Your task to perform on an android device: clear history in the chrome app Image 0: 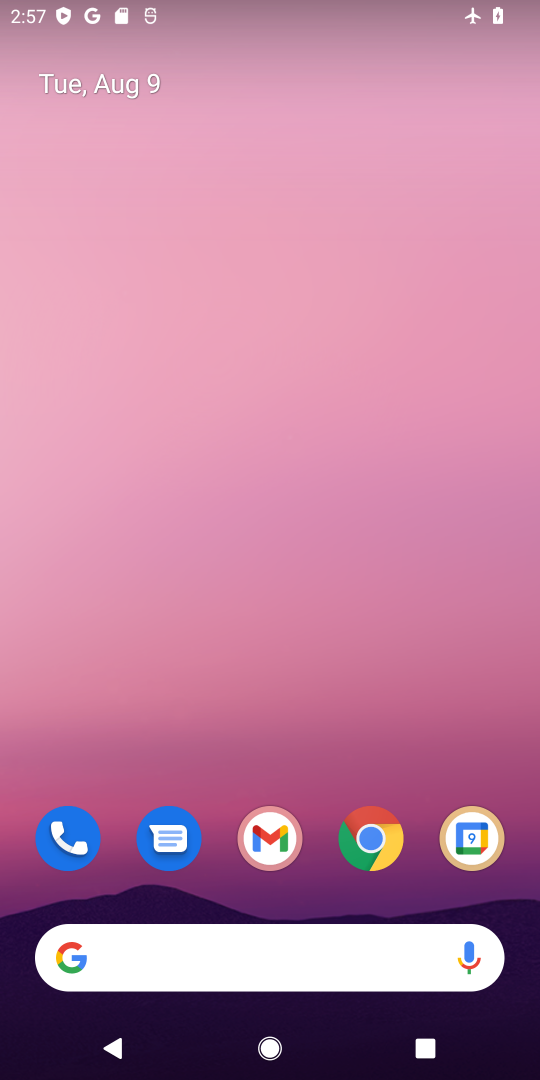
Step 0: drag from (322, 693) to (247, 107)
Your task to perform on an android device: clear history in the chrome app Image 1: 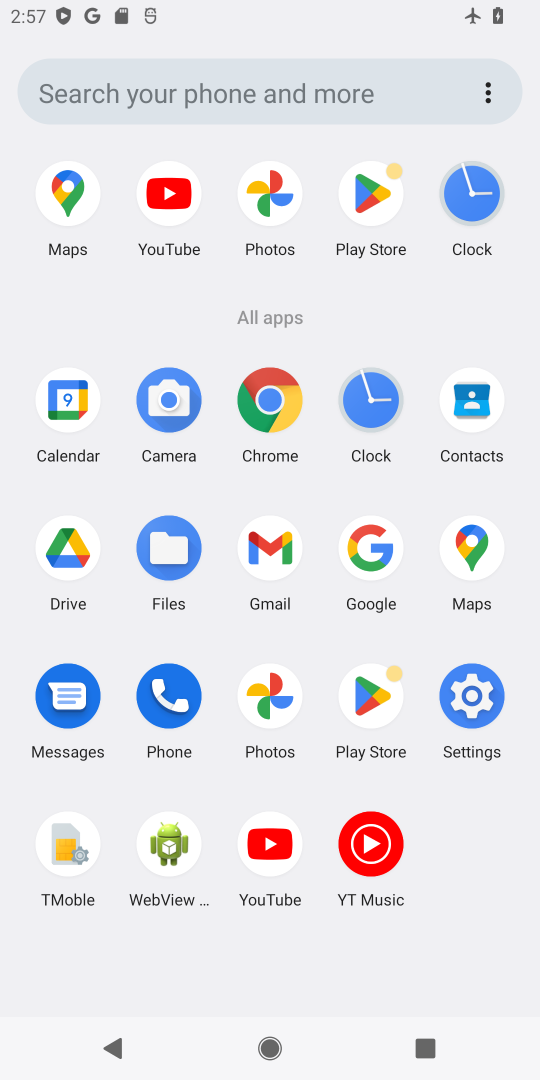
Step 1: click (256, 410)
Your task to perform on an android device: clear history in the chrome app Image 2: 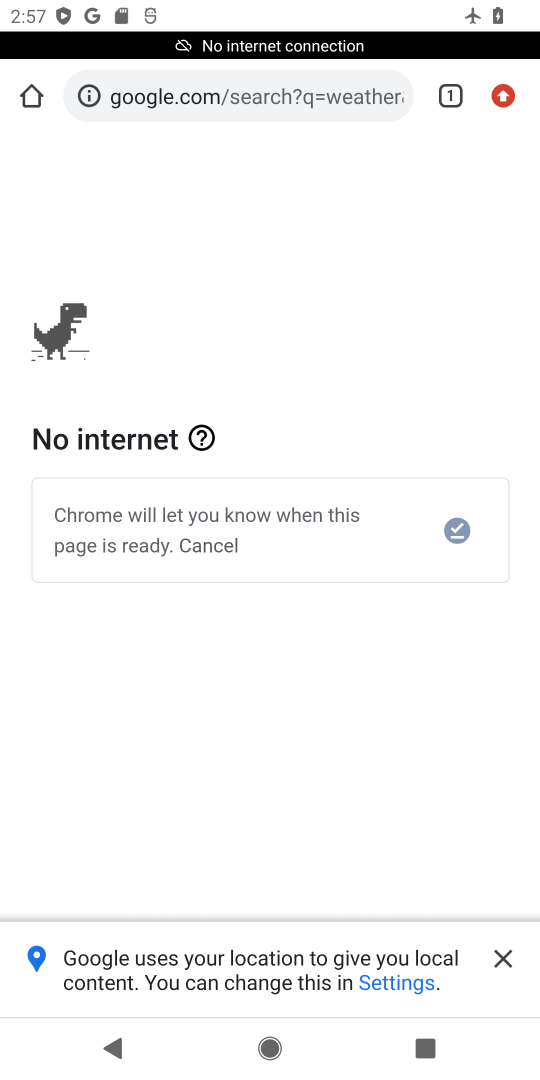
Step 2: drag from (520, 88) to (300, 362)
Your task to perform on an android device: clear history in the chrome app Image 3: 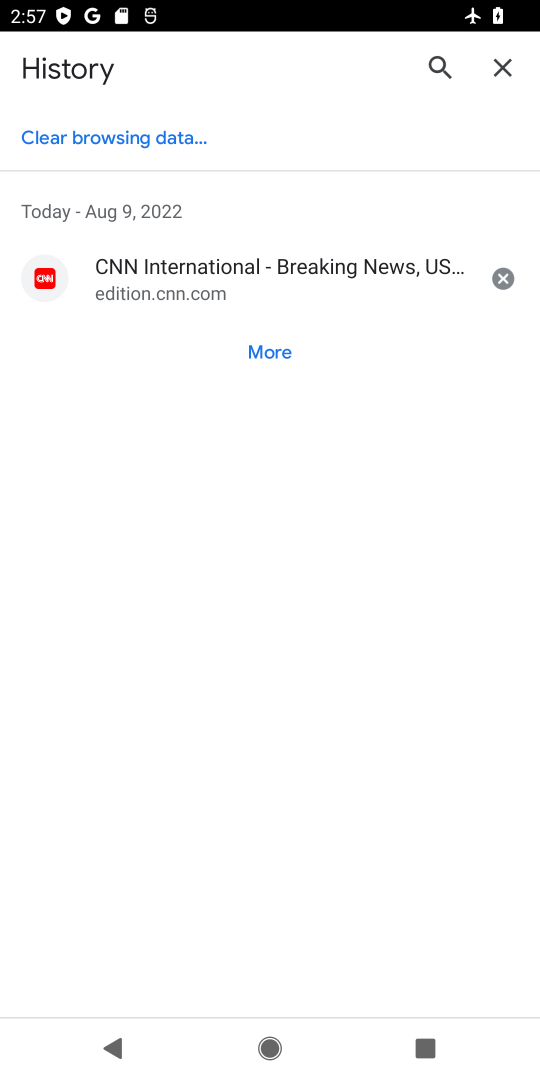
Step 3: click (135, 146)
Your task to perform on an android device: clear history in the chrome app Image 4: 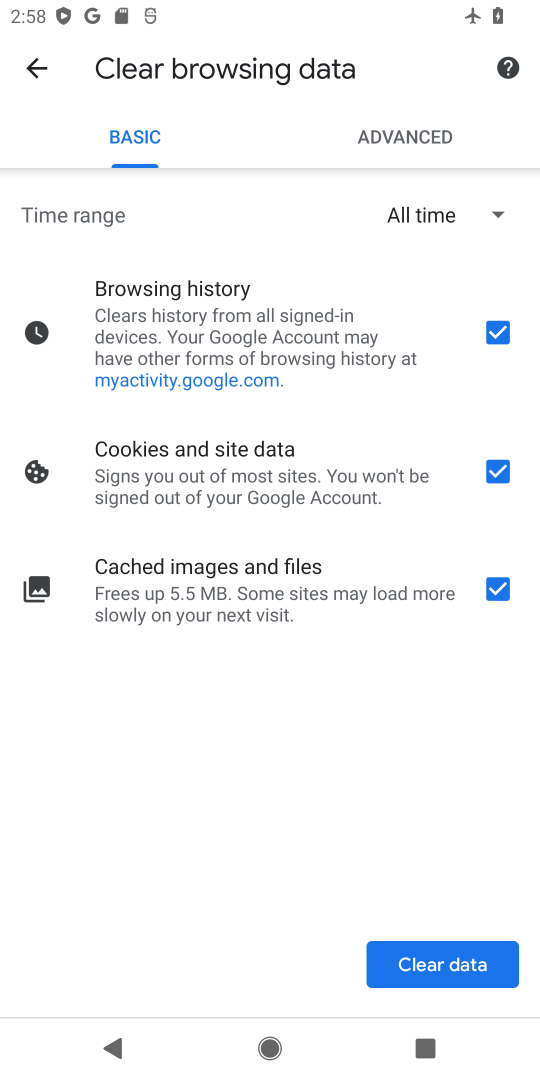
Step 4: click (462, 956)
Your task to perform on an android device: clear history in the chrome app Image 5: 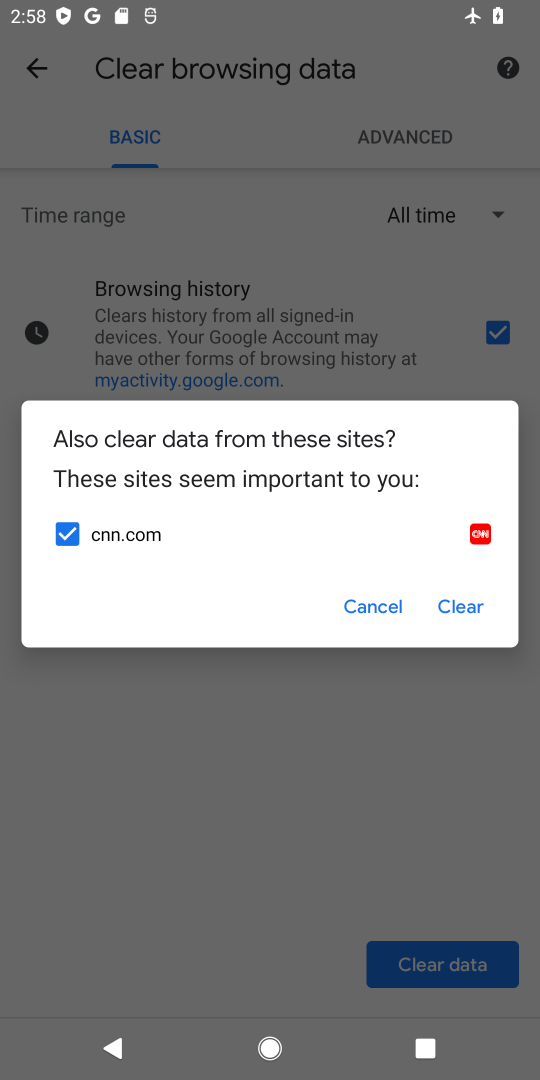
Step 5: click (469, 610)
Your task to perform on an android device: clear history in the chrome app Image 6: 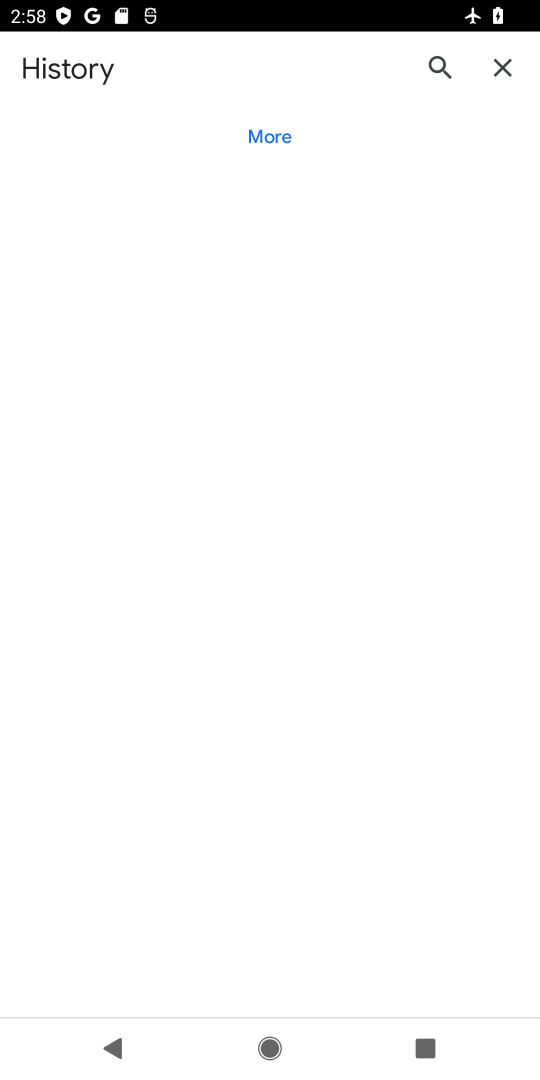
Step 6: task complete